Your task to perform on an android device: change the clock display to analog Image 0: 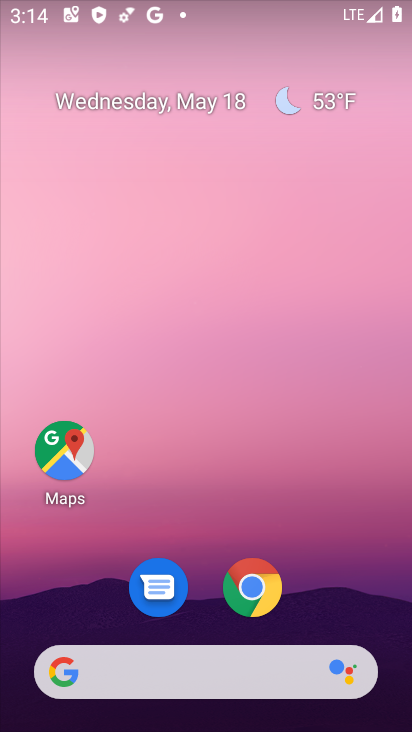
Step 0: drag from (235, 634) to (282, 207)
Your task to perform on an android device: change the clock display to analog Image 1: 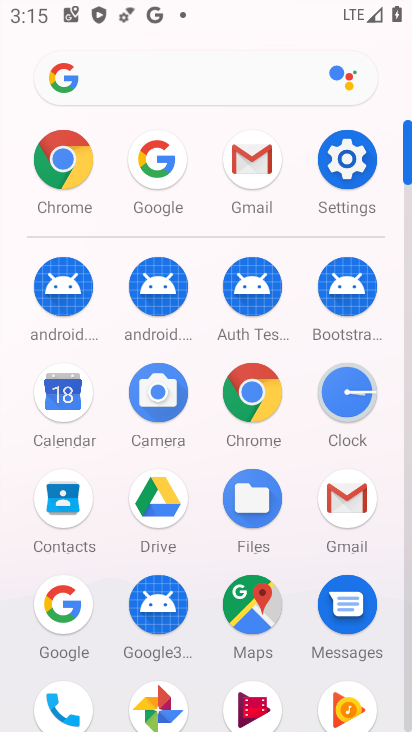
Step 1: click (335, 404)
Your task to perform on an android device: change the clock display to analog Image 2: 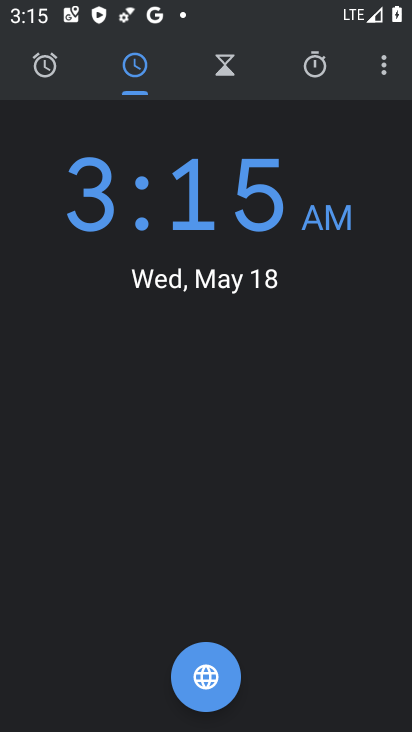
Step 2: click (383, 55)
Your task to perform on an android device: change the clock display to analog Image 3: 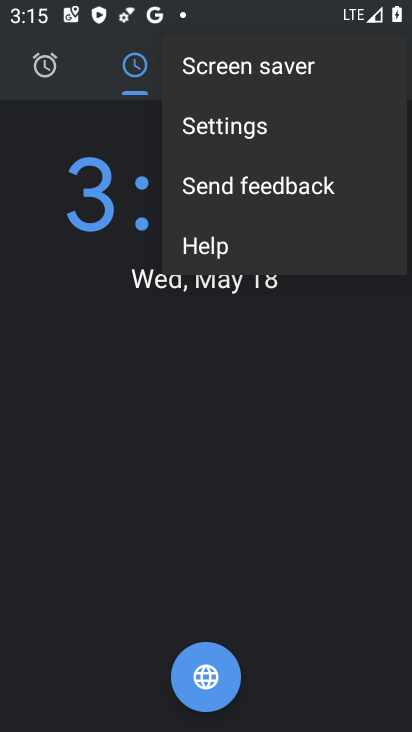
Step 3: click (277, 135)
Your task to perform on an android device: change the clock display to analog Image 4: 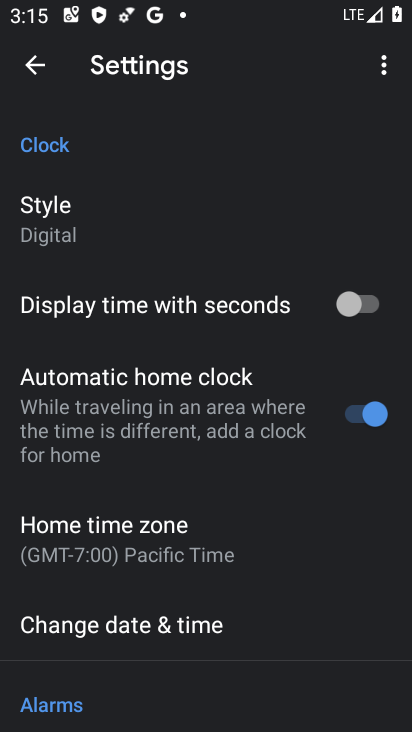
Step 4: click (120, 224)
Your task to perform on an android device: change the clock display to analog Image 5: 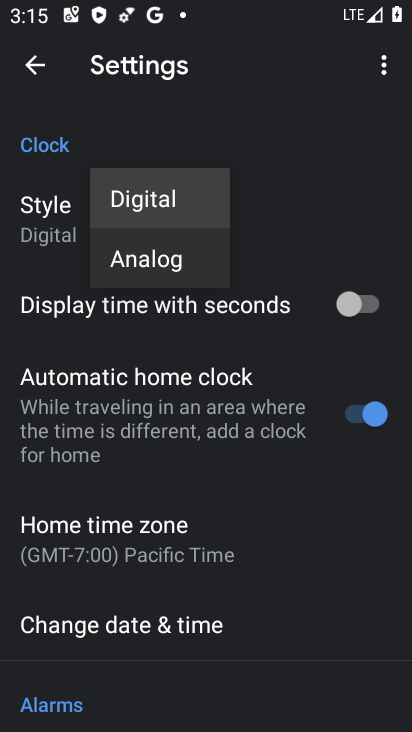
Step 5: click (152, 264)
Your task to perform on an android device: change the clock display to analog Image 6: 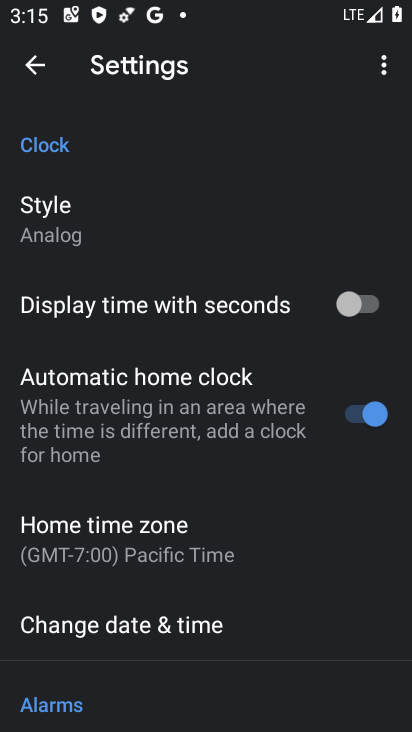
Step 6: task complete